Your task to perform on an android device: Open the map Image 0: 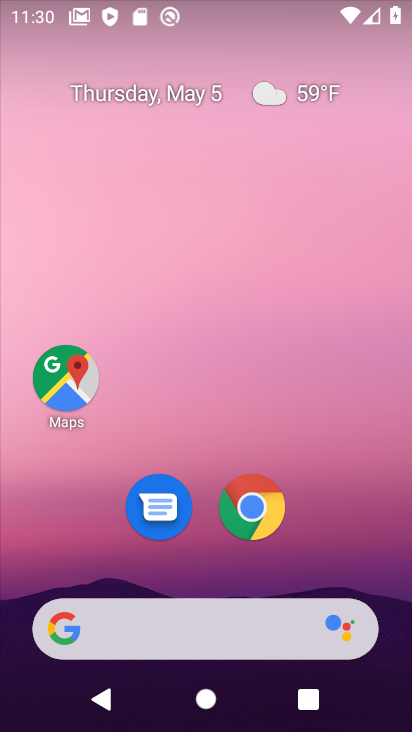
Step 0: click (57, 391)
Your task to perform on an android device: Open the map Image 1: 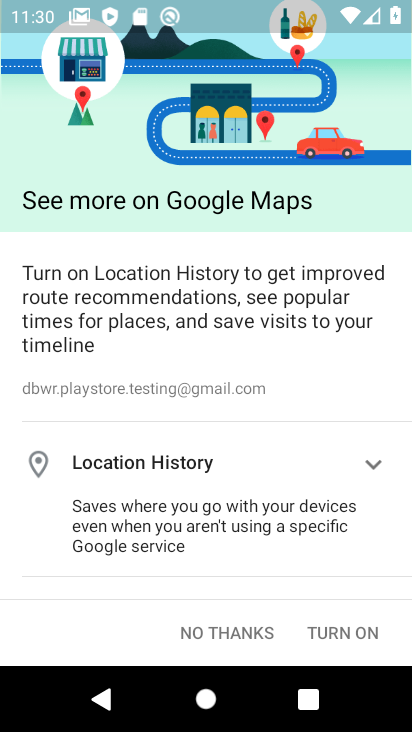
Step 1: task complete